Your task to perform on an android device: Open Android settings Image 0: 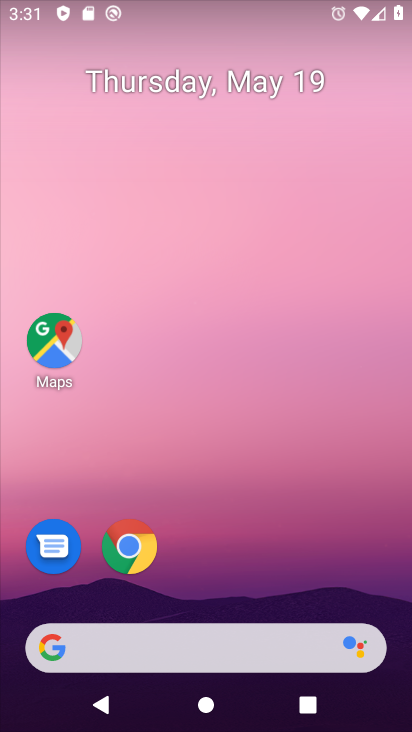
Step 0: drag from (214, 605) to (256, 52)
Your task to perform on an android device: Open Android settings Image 1: 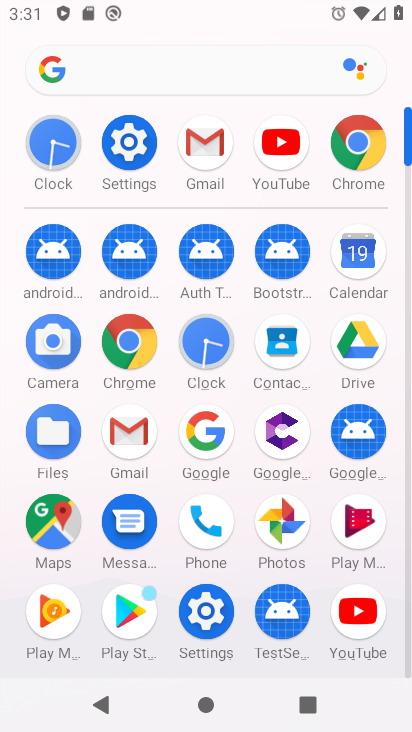
Step 1: click (127, 142)
Your task to perform on an android device: Open Android settings Image 2: 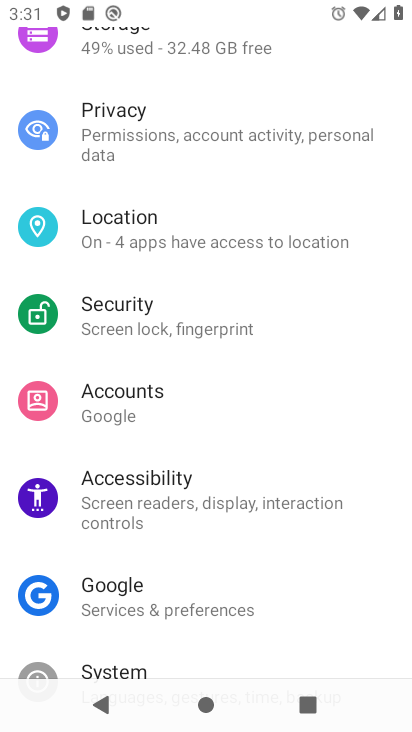
Step 2: drag from (188, 642) to (230, 45)
Your task to perform on an android device: Open Android settings Image 3: 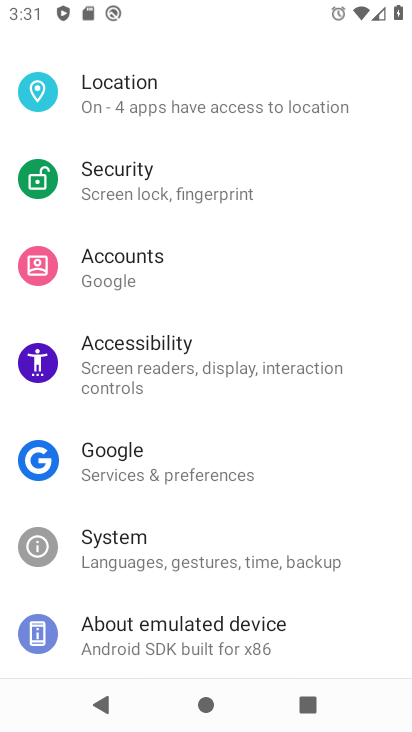
Step 3: click (287, 639)
Your task to perform on an android device: Open Android settings Image 4: 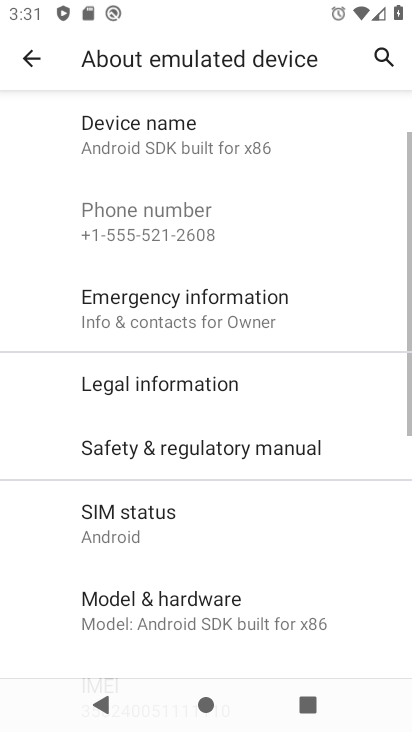
Step 4: drag from (221, 610) to (221, 212)
Your task to perform on an android device: Open Android settings Image 5: 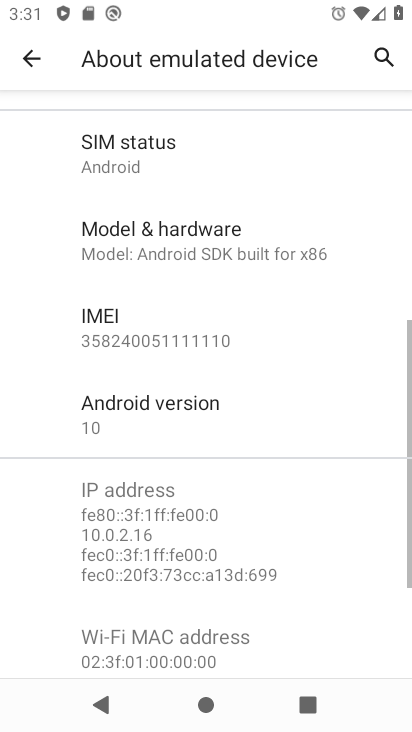
Step 5: click (144, 416)
Your task to perform on an android device: Open Android settings Image 6: 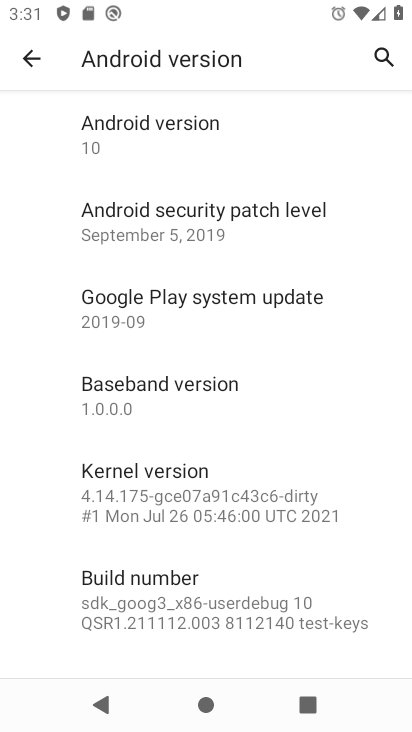
Step 6: task complete